Your task to perform on an android device: Open display settings Image 0: 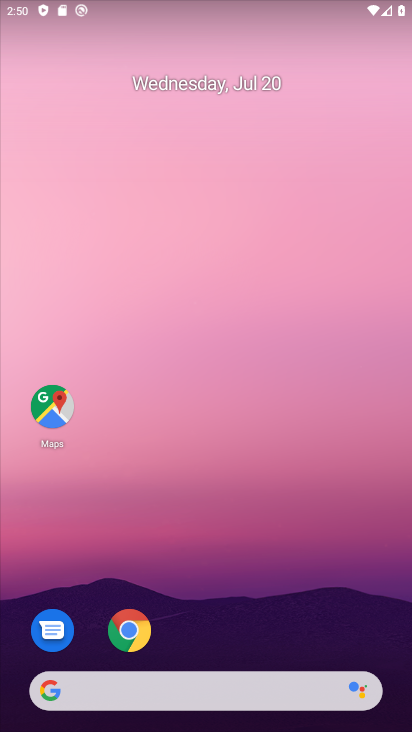
Step 0: click (213, 126)
Your task to perform on an android device: Open display settings Image 1: 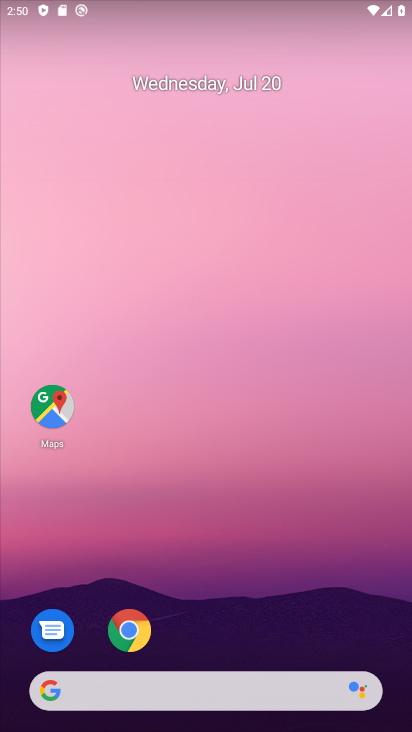
Step 1: drag from (265, 512) to (292, 72)
Your task to perform on an android device: Open display settings Image 2: 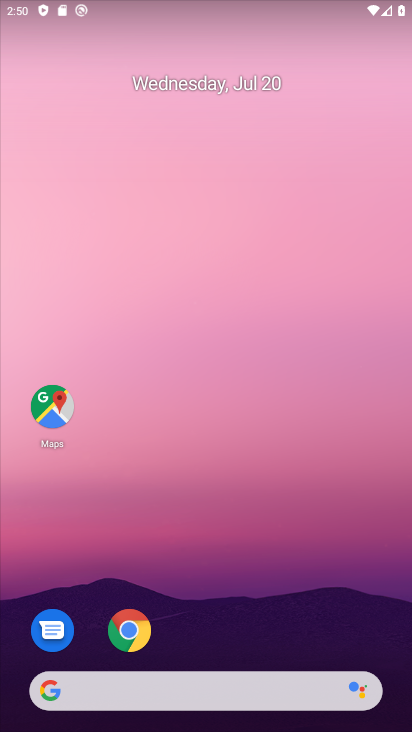
Step 2: drag from (267, 533) to (248, 266)
Your task to perform on an android device: Open display settings Image 3: 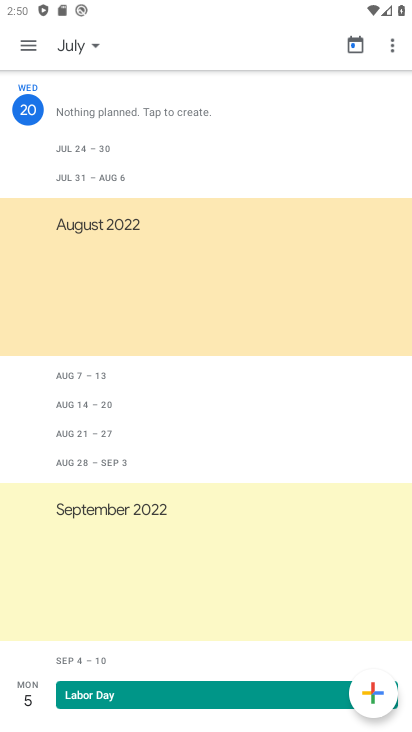
Step 3: drag from (237, 511) to (307, 138)
Your task to perform on an android device: Open display settings Image 4: 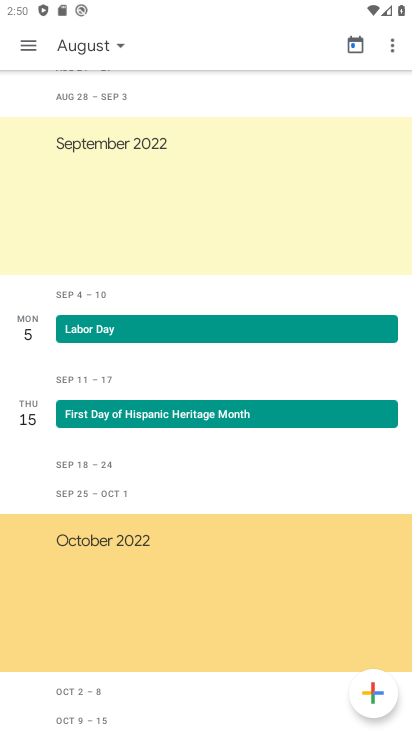
Step 4: drag from (263, 390) to (249, 125)
Your task to perform on an android device: Open display settings Image 5: 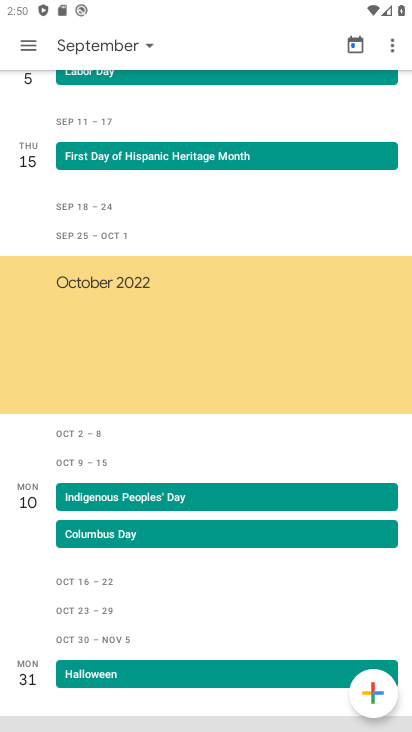
Step 5: press back button
Your task to perform on an android device: Open display settings Image 6: 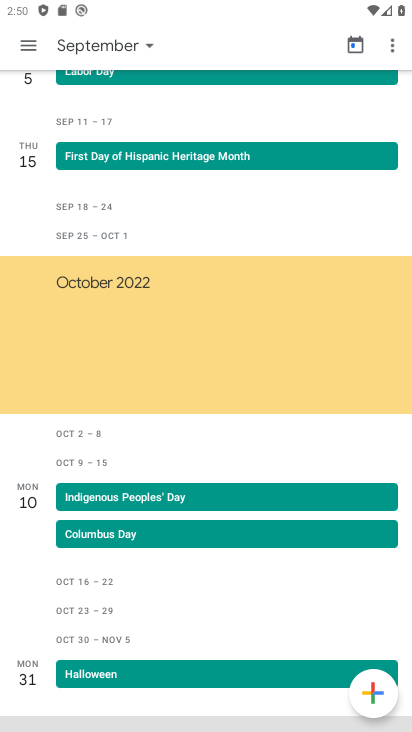
Step 6: press back button
Your task to perform on an android device: Open display settings Image 7: 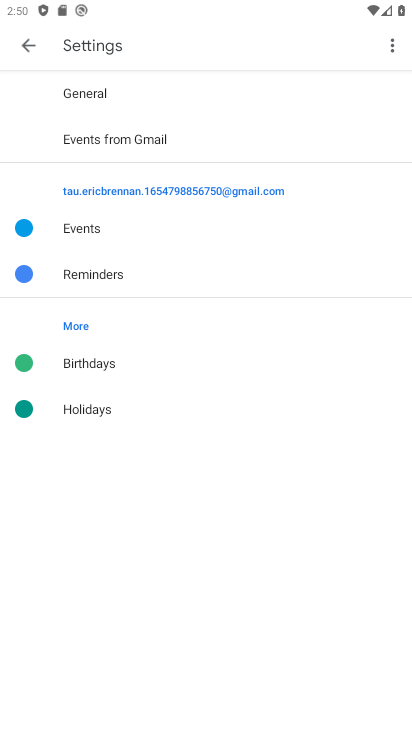
Step 7: press back button
Your task to perform on an android device: Open display settings Image 8: 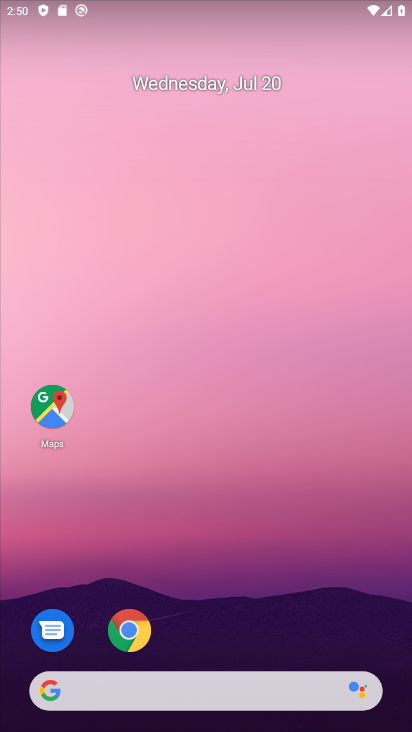
Step 8: drag from (181, 394) to (119, 95)
Your task to perform on an android device: Open display settings Image 9: 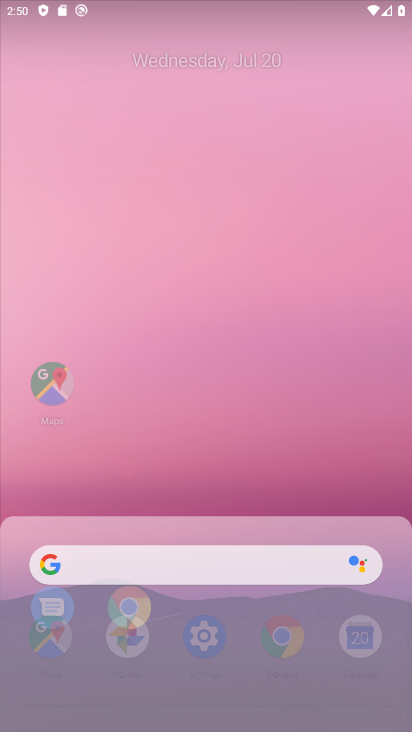
Step 9: drag from (202, 537) to (165, 220)
Your task to perform on an android device: Open display settings Image 10: 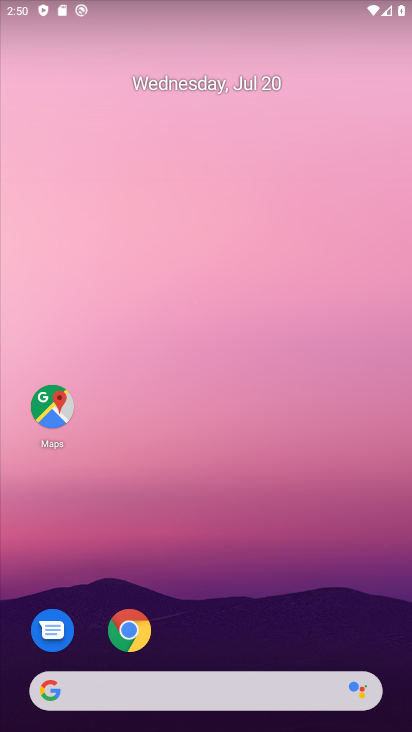
Step 10: drag from (262, 524) to (214, 151)
Your task to perform on an android device: Open display settings Image 11: 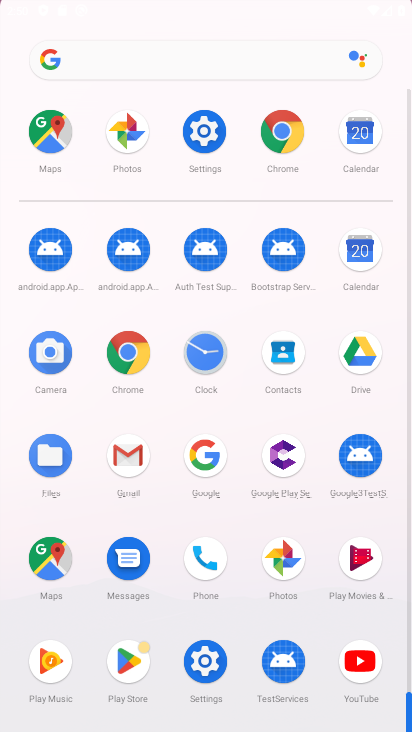
Step 11: drag from (167, 594) to (161, 127)
Your task to perform on an android device: Open display settings Image 12: 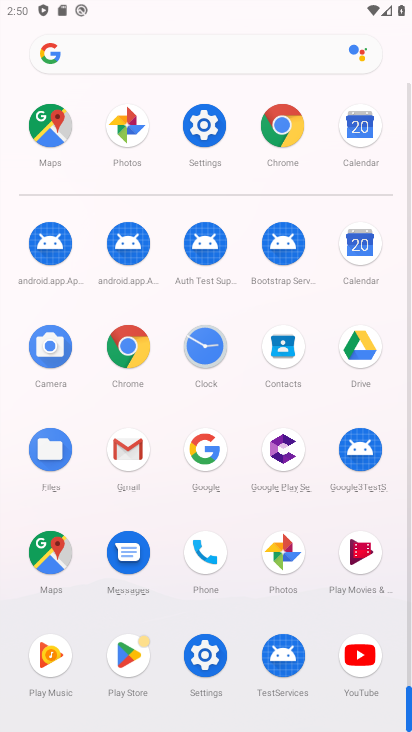
Step 12: click (205, 107)
Your task to perform on an android device: Open display settings Image 13: 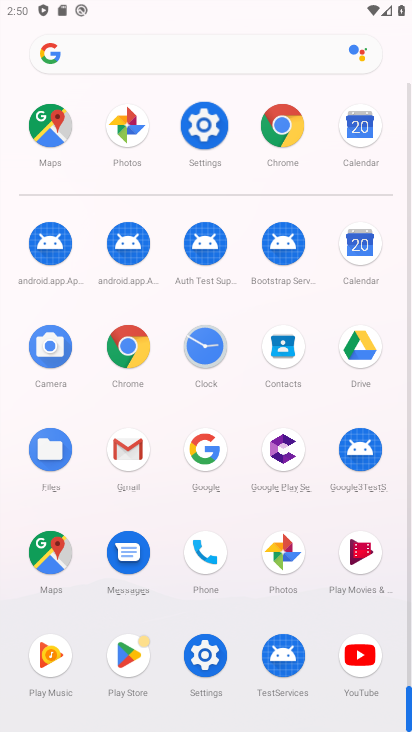
Step 13: click (207, 119)
Your task to perform on an android device: Open display settings Image 14: 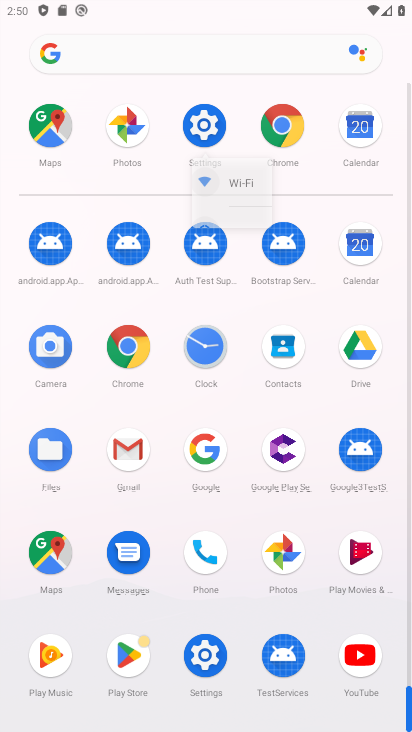
Step 14: click (209, 124)
Your task to perform on an android device: Open display settings Image 15: 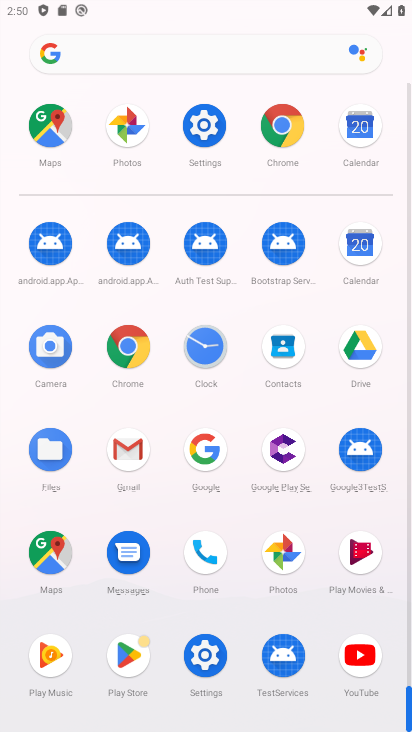
Step 15: click (209, 124)
Your task to perform on an android device: Open display settings Image 16: 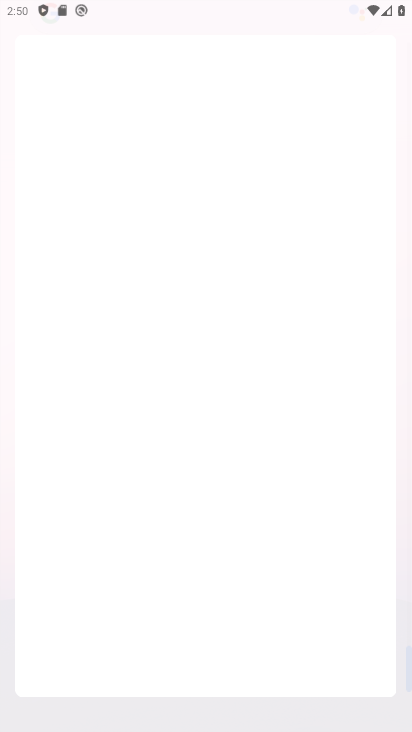
Step 16: click (209, 124)
Your task to perform on an android device: Open display settings Image 17: 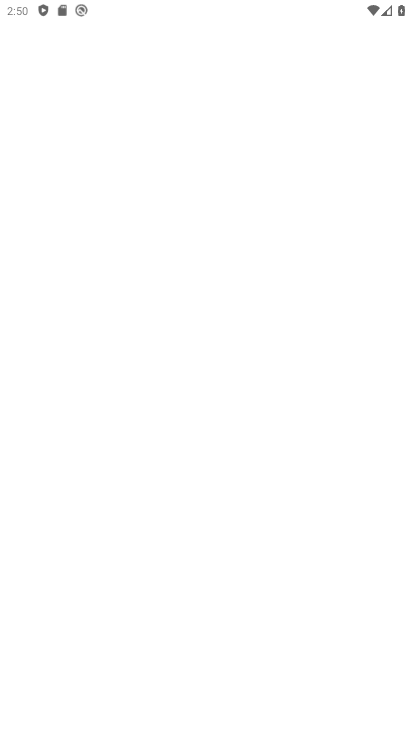
Step 17: click (209, 125)
Your task to perform on an android device: Open display settings Image 18: 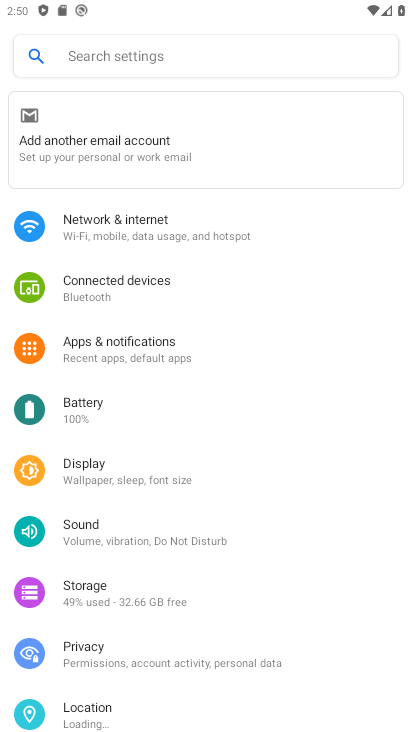
Step 18: click (89, 490)
Your task to perform on an android device: Open display settings Image 19: 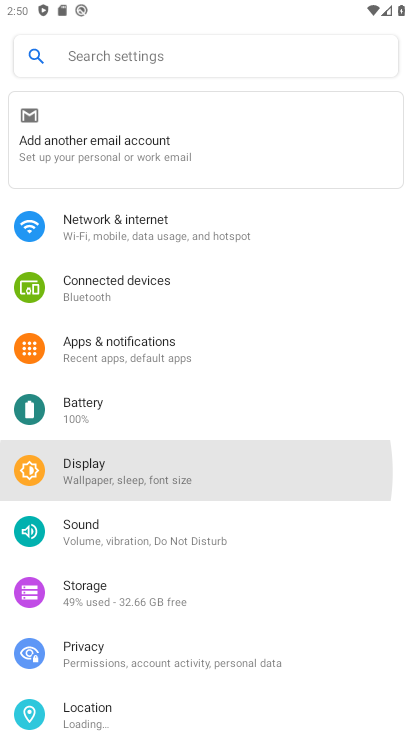
Step 19: click (88, 481)
Your task to perform on an android device: Open display settings Image 20: 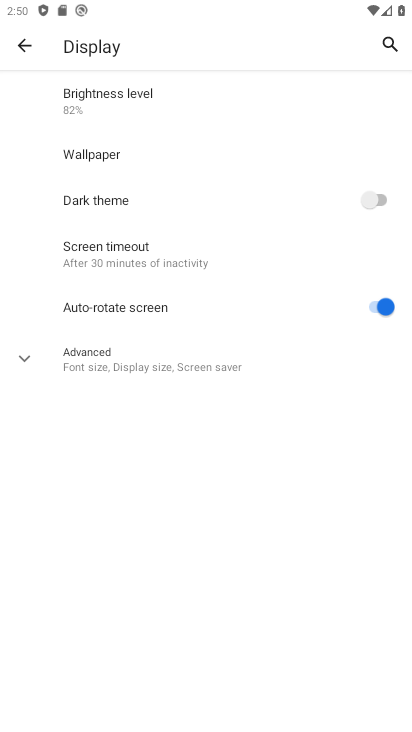
Step 20: click (15, 48)
Your task to perform on an android device: Open display settings Image 21: 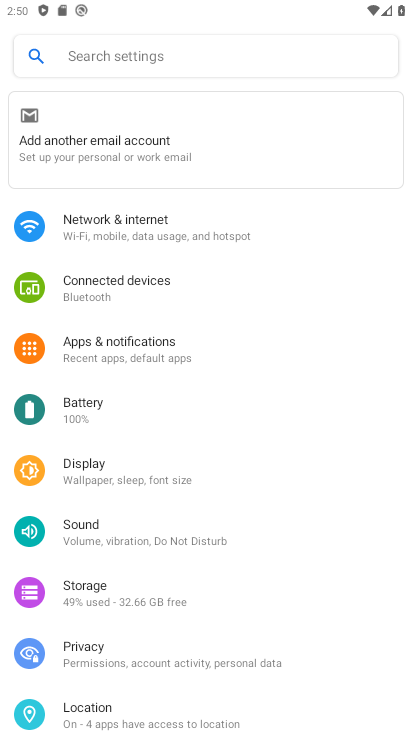
Step 21: press back button
Your task to perform on an android device: Open display settings Image 22: 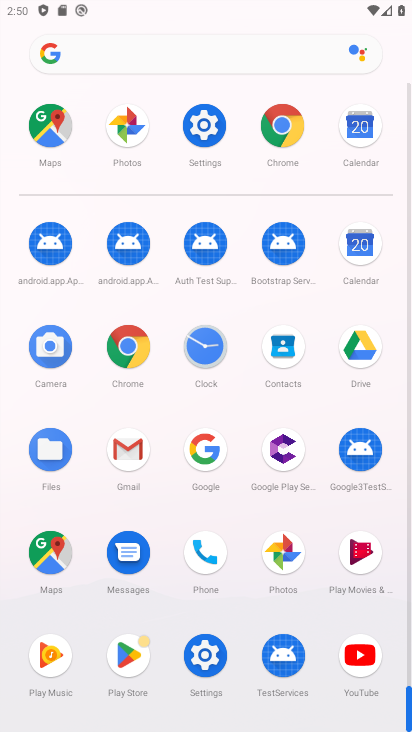
Step 22: click (200, 111)
Your task to perform on an android device: Open display settings Image 23: 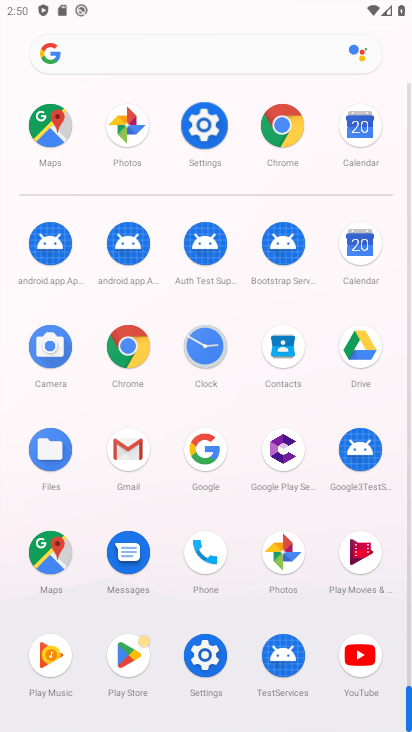
Step 23: click (199, 121)
Your task to perform on an android device: Open display settings Image 24: 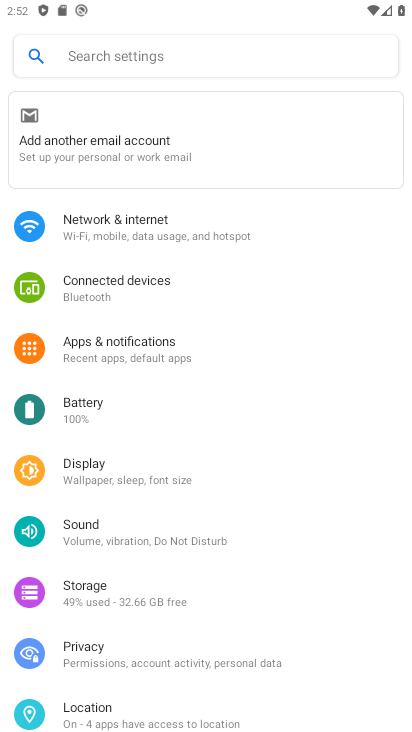
Step 24: click (87, 474)
Your task to perform on an android device: Open display settings Image 25: 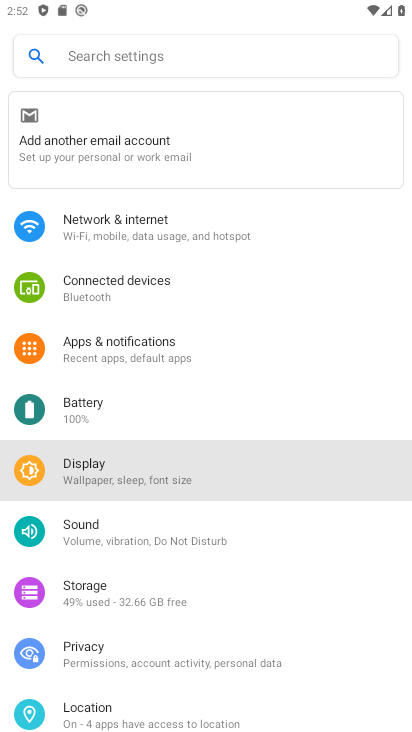
Step 25: click (87, 475)
Your task to perform on an android device: Open display settings Image 26: 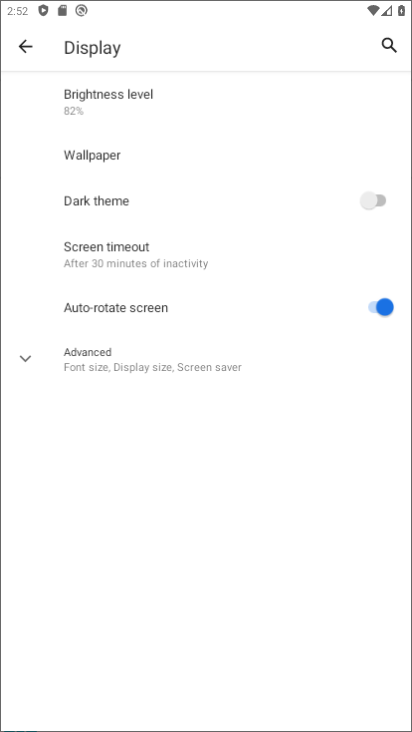
Step 26: click (92, 476)
Your task to perform on an android device: Open display settings Image 27: 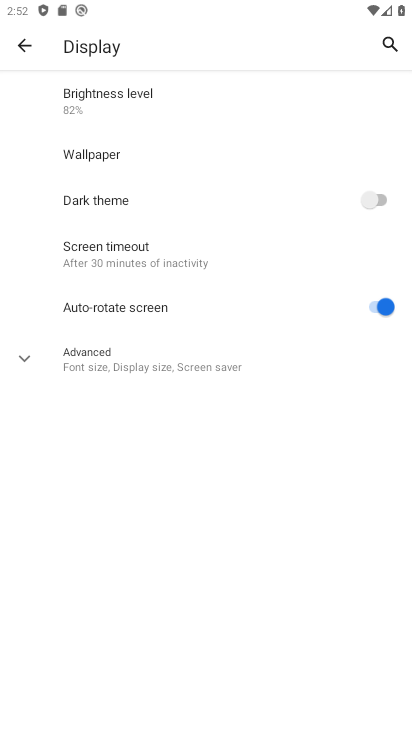
Step 27: click (92, 476)
Your task to perform on an android device: Open display settings Image 28: 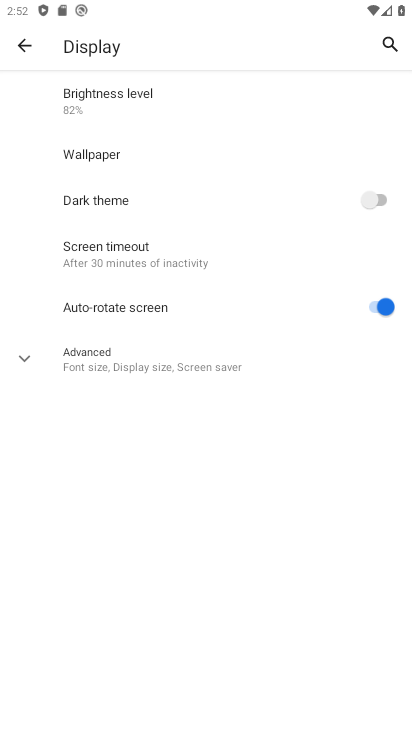
Step 28: click (93, 476)
Your task to perform on an android device: Open display settings Image 29: 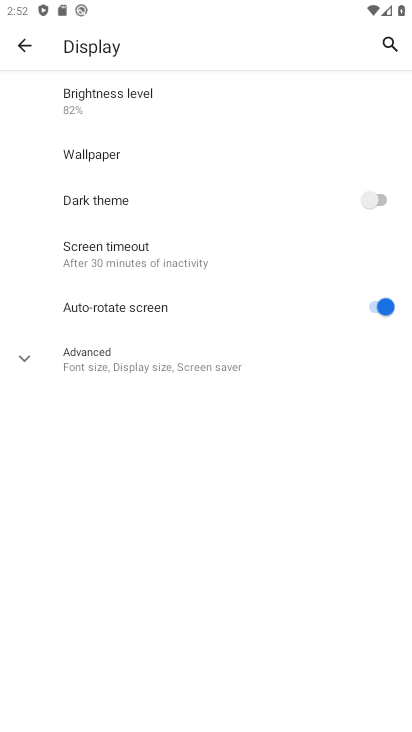
Step 29: click (93, 476)
Your task to perform on an android device: Open display settings Image 30: 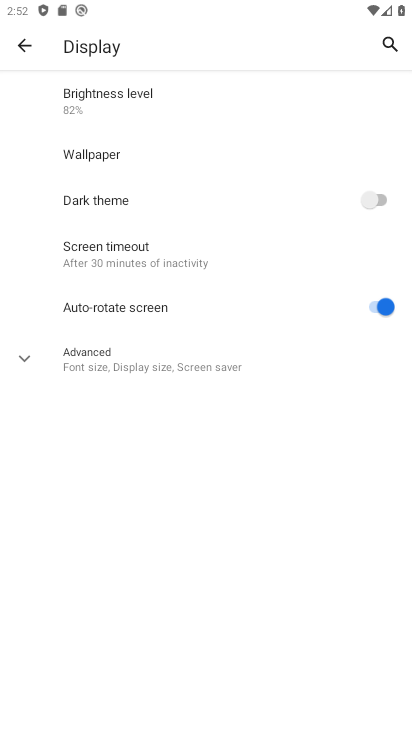
Step 30: click (93, 476)
Your task to perform on an android device: Open display settings Image 31: 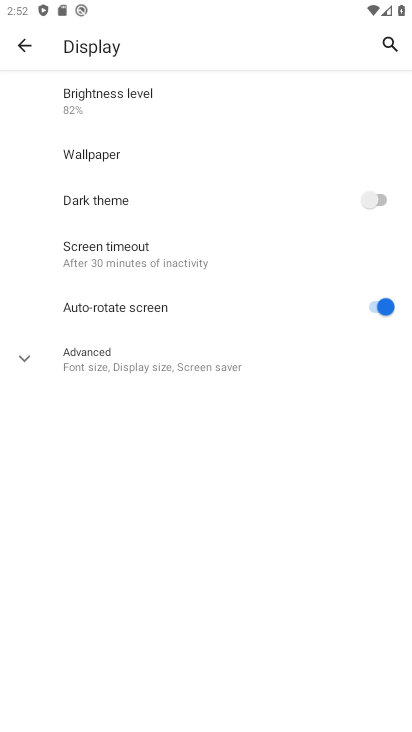
Step 31: click (93, 476)
Your task to perform on an android device: Open display settings Image 32: 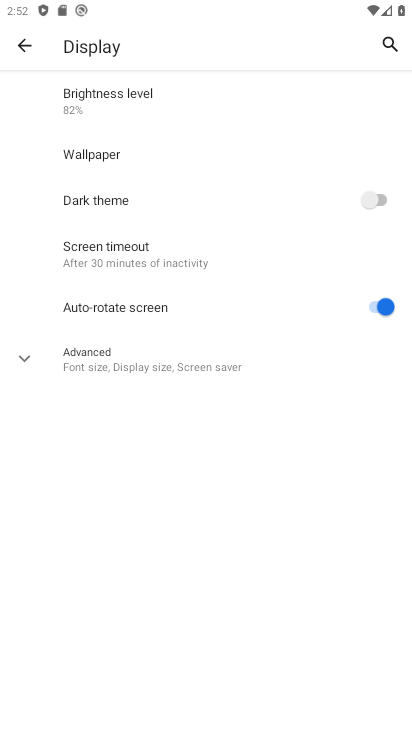
Step 32: click (95, 474)
Your task to perform on an android device: Open display settings Image 33: 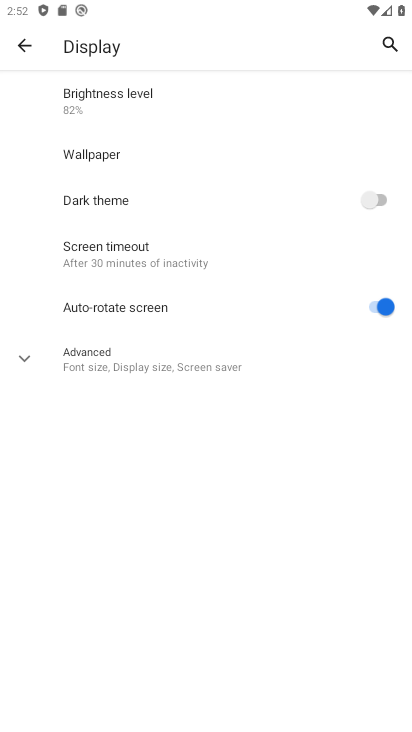
Step 33: click (96, 469)
Your task to perform on an android device: Open display settings Image 34: 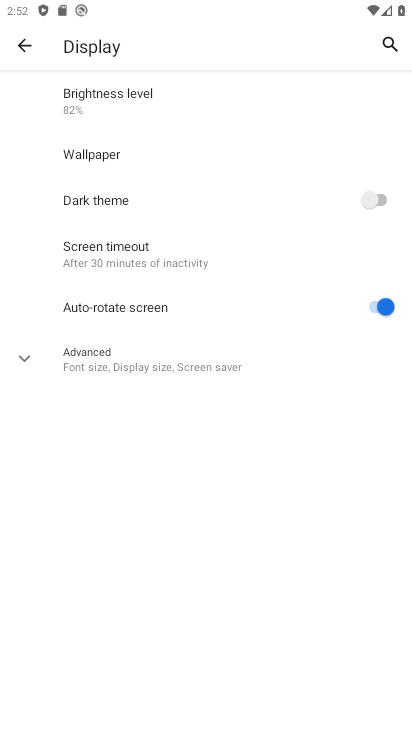
Step 34: task complete